Your task to perform on an android device: Show me productivity apps on the Play Store Image 0: 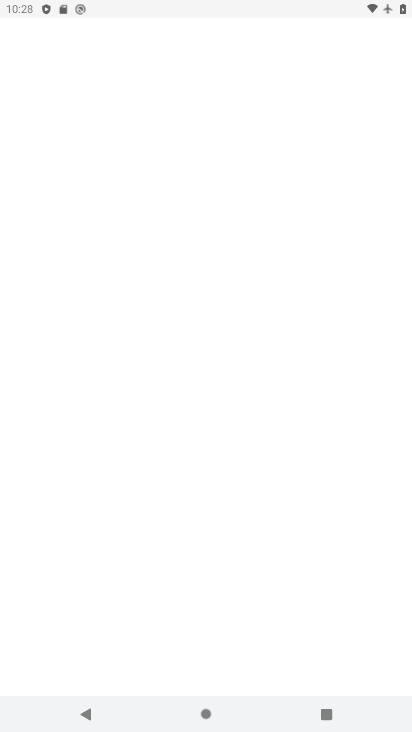
Step 0: press home button
Your task to perform on an android device: Show me productivity apps on the Play Store Image 1: 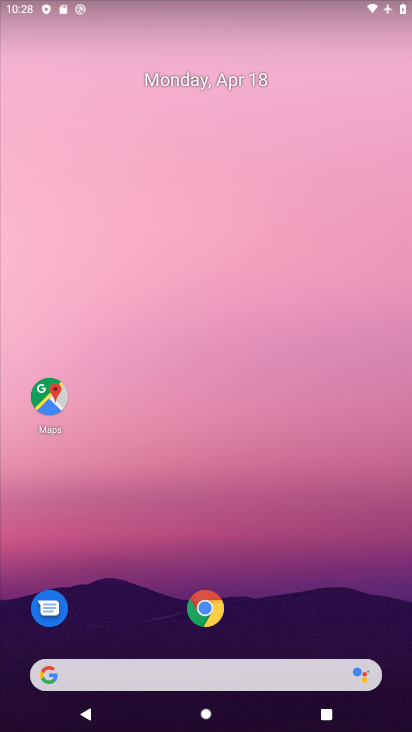
Step 1: drag from (303, 523) to (327, 136)
Your task to perform on an android device: Show me productivity apps on the Play Store Image 2: 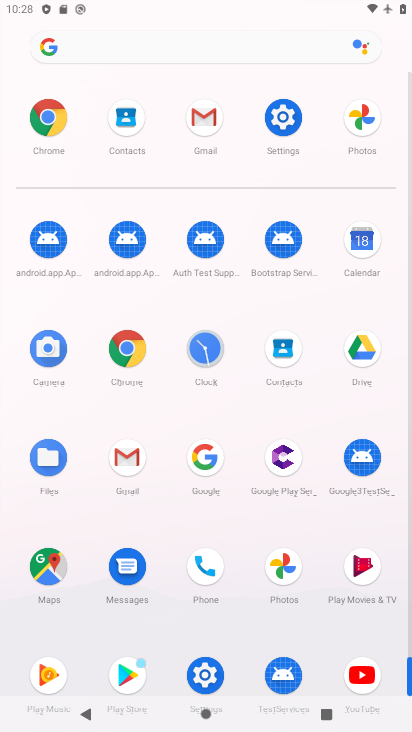
Step 2: drag from (283, 625) to (349, 191)
Your task to perform on an android device: Show me productivity apps on the Play Store Image 3: 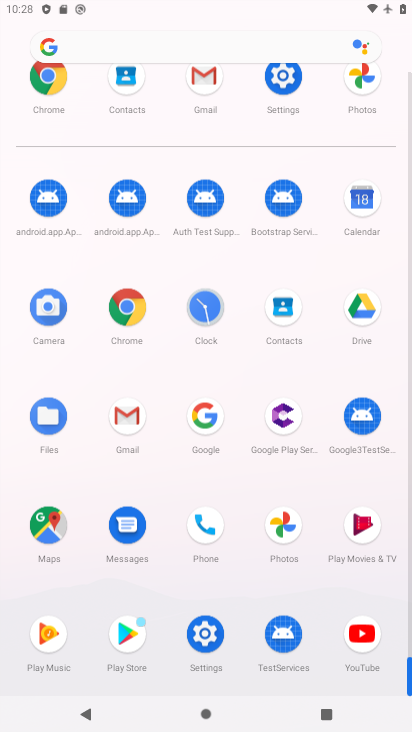
Step 3: click (119, 616)
Your task to perform on an android device: Show me productivity apps on the Play Store Image 4: 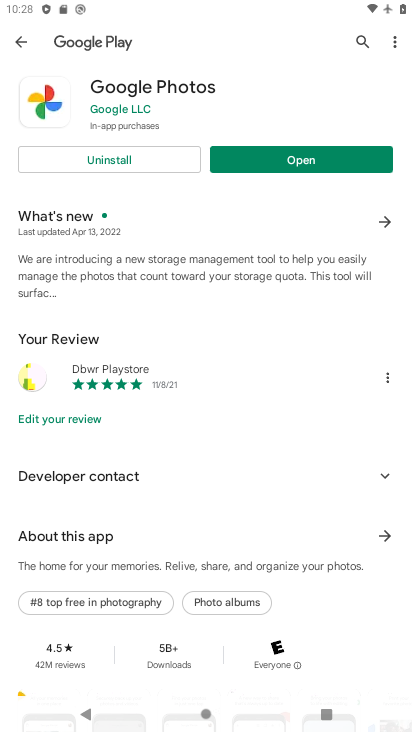
Step 4: press back button
Your task to perform on an android device: Show me productivity apps on the Play Store Image 5: 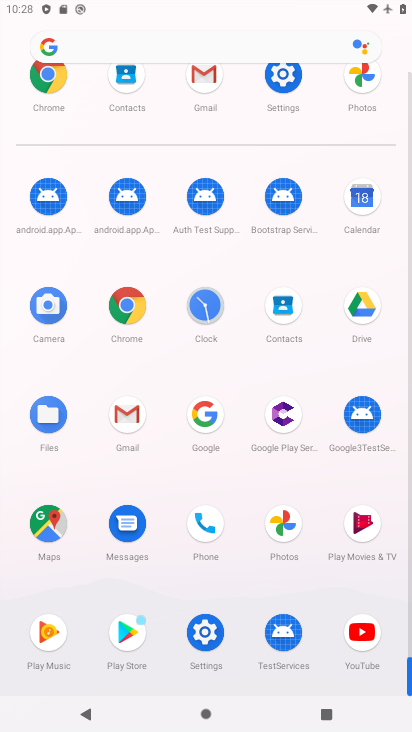
Step 5: click (124, 626)
Your task to perform on an android device: Show me productivity apps on the Play Store Image 6: 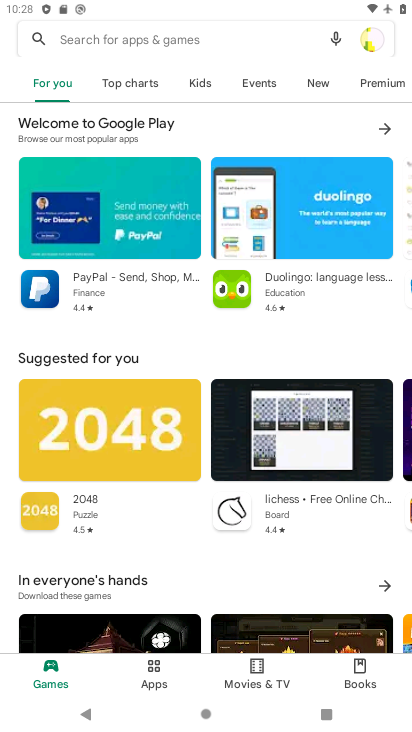
Step 6: click (158, 675)
Your task to perform on an android device: Show me productivity apps on the Play Store Image 7: 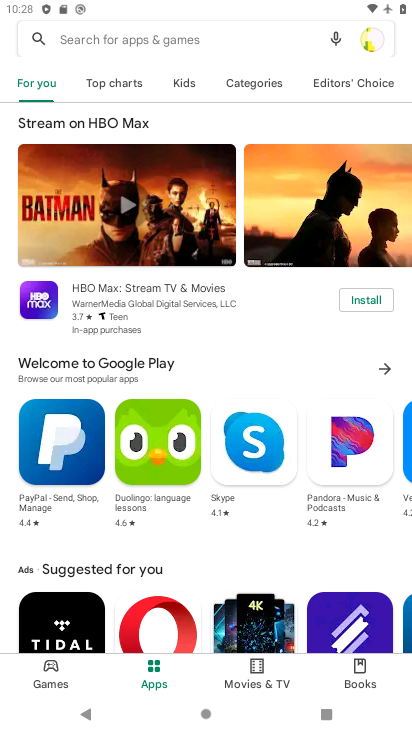
Step 7: click (253, 84)
Your task to perform on an android device: Show me productivity apps on the Play Store Image 8: 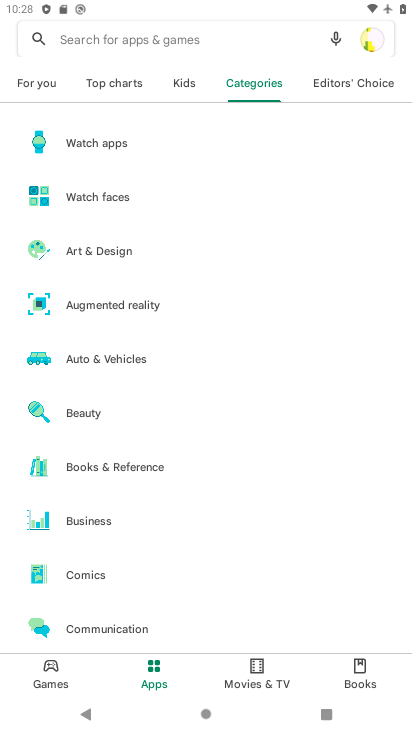
Step 8: drag from (219, 508) to (238, 188)
Your task to perform on an android device: Show me productivity apps on the Play Store Image 9: 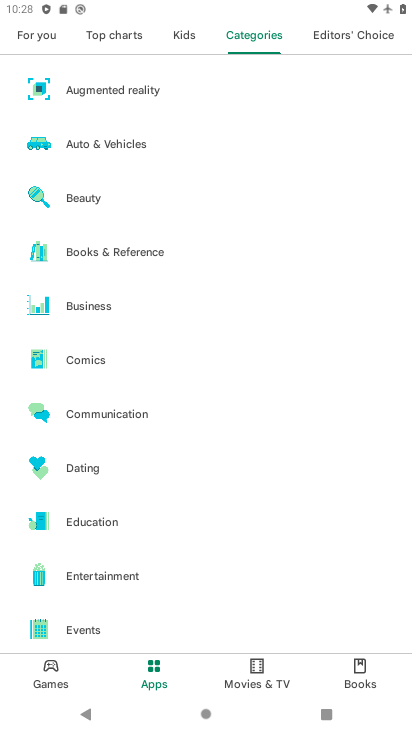
Step 9: drag from (203, 585) to (225, 315)
Your task to perform on an android device: Show me productivity apps on the Play Store Image 10: 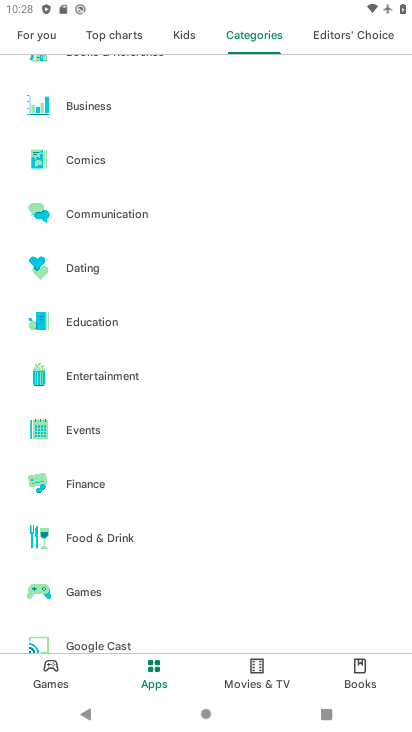
Step 10: drag from (203, 630) to (215, 300)
Your task to perform on an android device: Show me productivity apps on the Play Store Image 11: 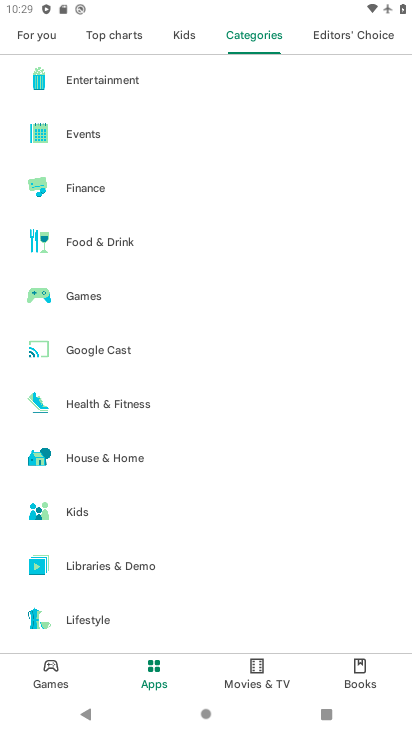
Step 11: drag from (236, 605) to (254, 245)
Your task to perform on an android device: Show me productivity apps on the Play Store Image 12: 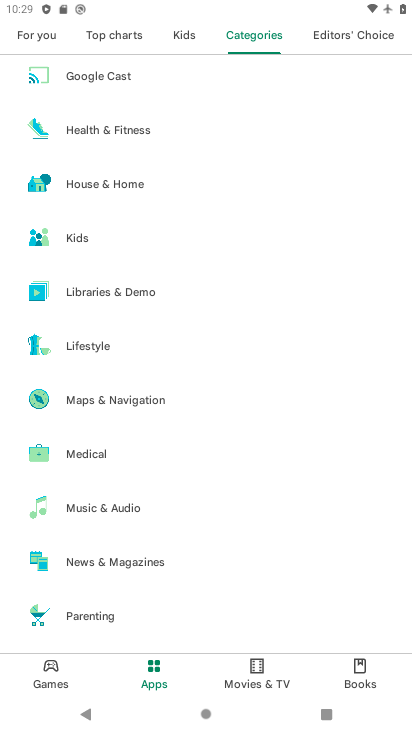
Step 12: drag from (259, 542) to (245, 161)
Your task to perform on an android device: Show me productivity apps on the Play Store Image 13: 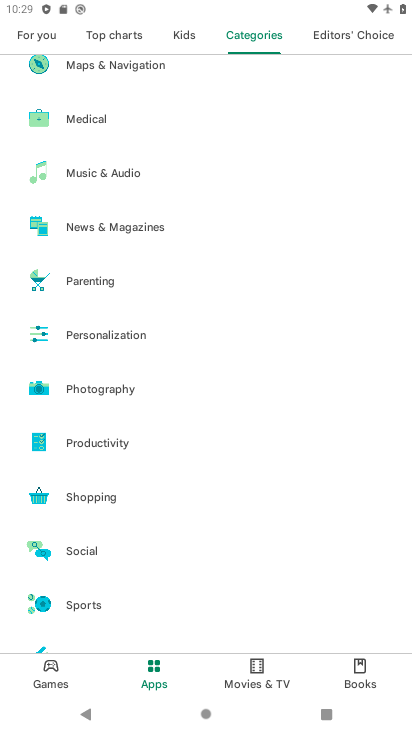
Step 13: click (109, 437)
Your task to perform on an android device: Show me productivity apps on the Play Store Image 14: 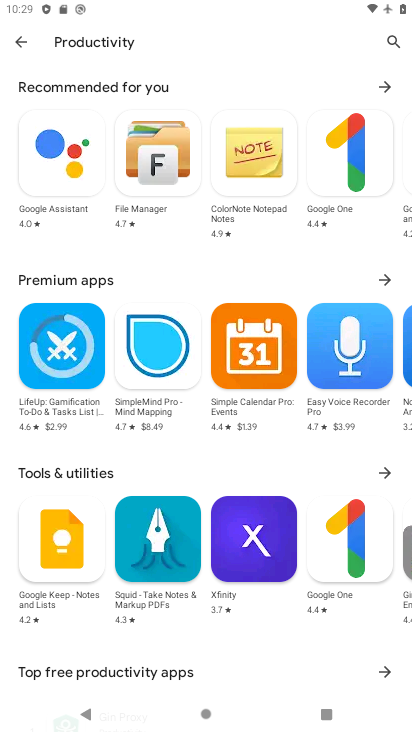
Step 14: task complete